Your task to perform on an android device: Go to CNN.com Image 0: 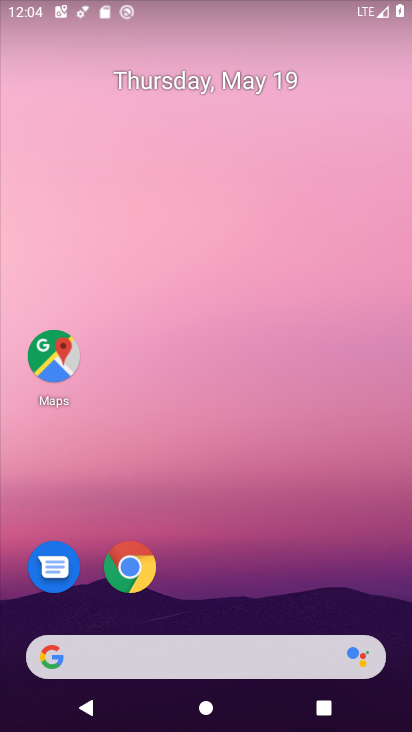
Step 0: click (144, 572)
Your task to perform on an android device: Go to CNN.com Image 1: 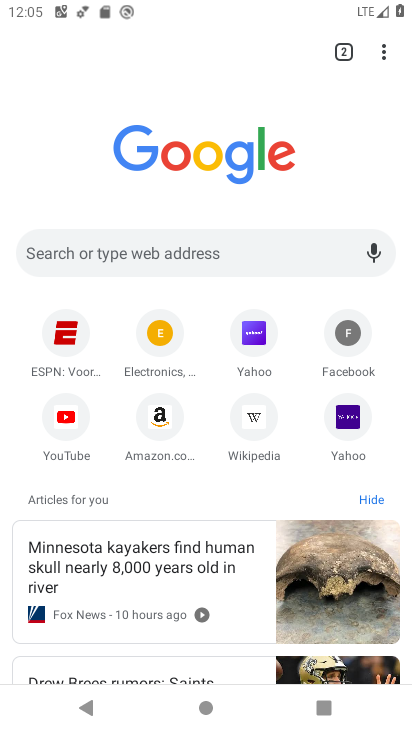
Step 1: click (203, 245)
Your task to perform on an android device: Go to CNN.com Image 2: 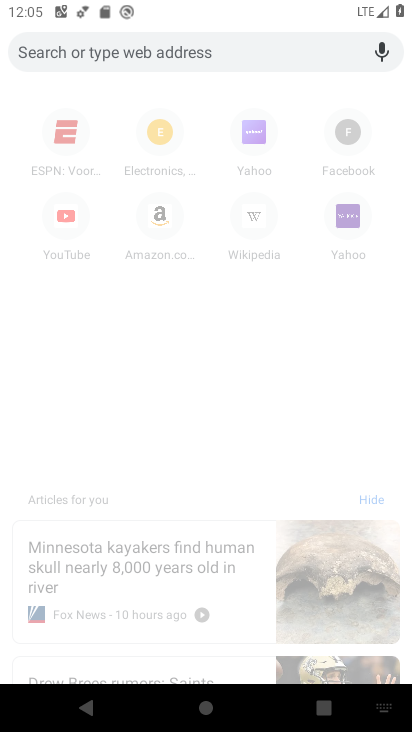
Step 2: type "cnn"
Your task to perform on an android device: Go to CNN.com Image 3: 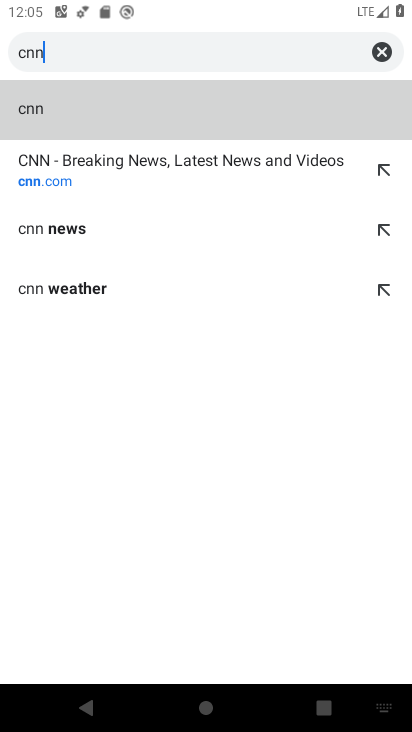
Step 3: click (5, 170)
Your task to perform on an android device: Go to CNN.com Image 4: 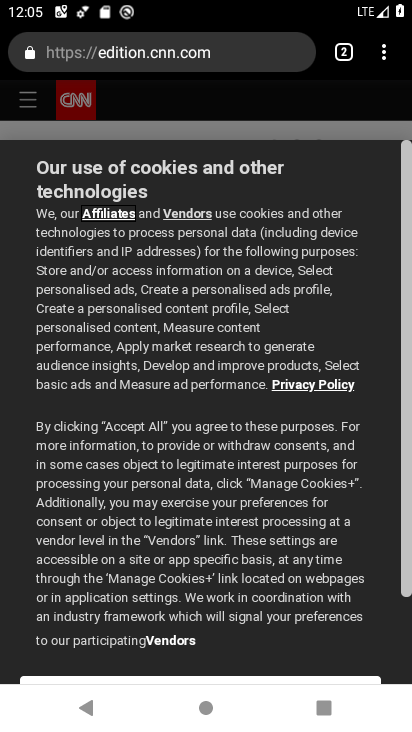
Step 4: task complete